Your task to perform on an android device: Clear all items from cart on costco.com. Search for "razer blade" on costco.com, select the first entry, and add it to the cart. Image 0: 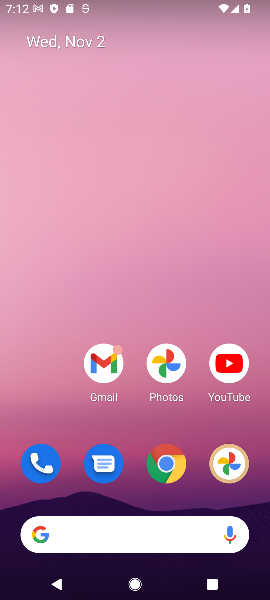
Step 0: click (166, 474)
Your task to perform on an android device: Clear all items from cart on costco.com. Search for "razer blade" on costco.com, select the first entry, and add it to the cart. Image 1: 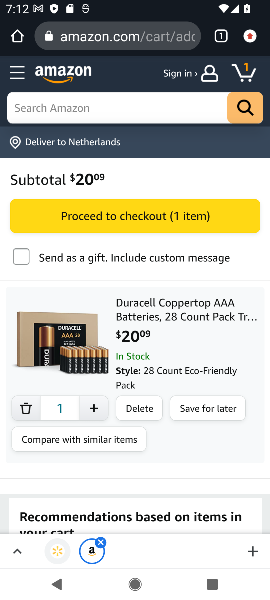
Step 1: click (112, 43)
Your task to perform on an android device: Clear all items from cart on costco.com. Search for "razer blade" on costco.com, select the first entry, and add it to the cart. Image 2: 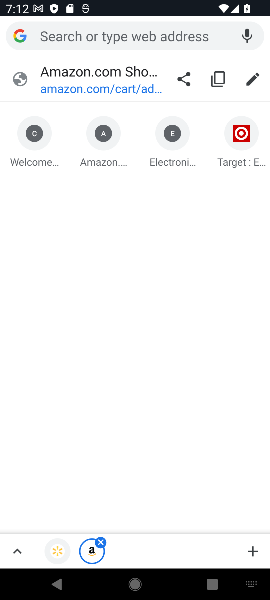
Step 2: type "costco.com"
Your task to perform on an android device: Clear all items from cart on costco.com. Search for "razer blade" on costco.com, select the first entry, and add it to the cart. Image 3: 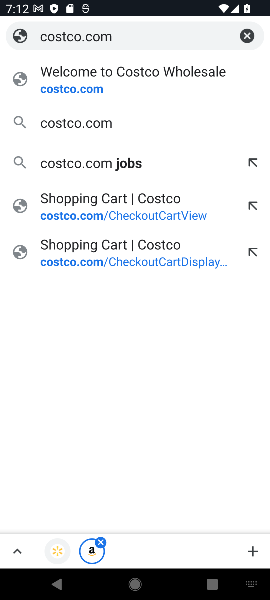
Step 3: click (53, 92)
Your task to perform on an android device: Clear all items from cart on costco.com. Search for "razer blade" on costco.com, select the first entry, and add it to the cart. Image 4: 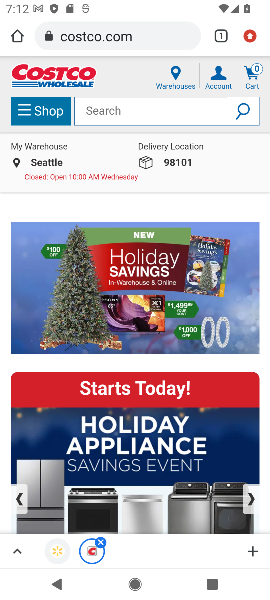
Step 4: click (263, 74)
Your task to perform on an android device: Clear all items from cart on costco.com. Search for "razer blade" on costco.com, select the first entry, and add it to the cart. Image 5: 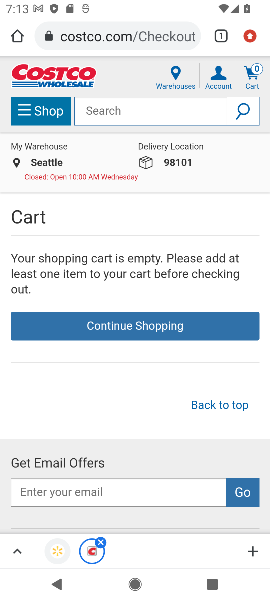
Step 5: click (164, 100)
Your task to perform on an android device: Clear all items from cart on costco.com. Search for "razer blade" on costco.com, select the first entry, and add it to the cart. Image 6: 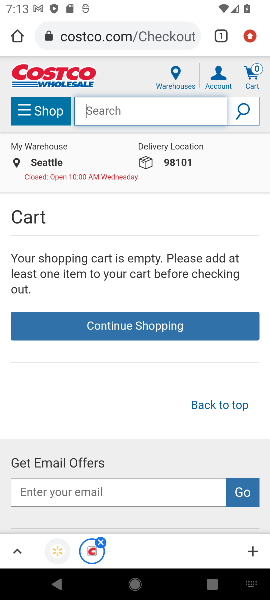
Step 6: type "razer blade"
Your task to perform on an android device: Clear all items from cart on costco.com. Search for "razer blade" on costco.com, select the first entry, and add it to the cart. Image 7: 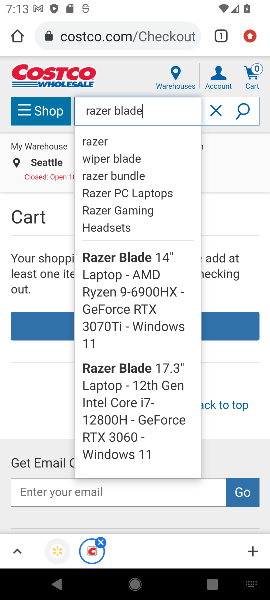
Step 7: click (249, 108)
Your task to perform on an android device: Clear all items from cart on costco.com. Search for "razer blade" on costco.com, select the first entry, and add it to the cart. Image 8: 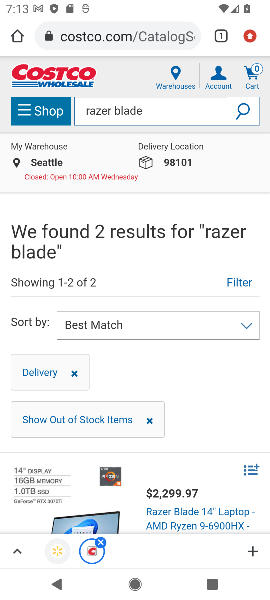
Step 8: drag from (170, 505) to (191, 286)
Your task to perform on an android device: Clear all items from cart on costco.com. Search for "razer blade" on costco.com, select the first entry, and add it to the cart. Image 9: 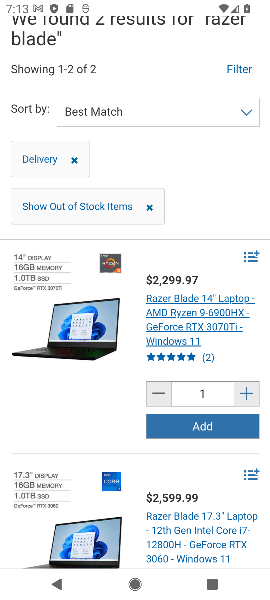
Step 9: click (184, 307)
Your task to perform on an android device: Clear all items from cart on costco.com. Search for "razer blade" on costco.com, select the first entry, and add it to the cart. Image 10: 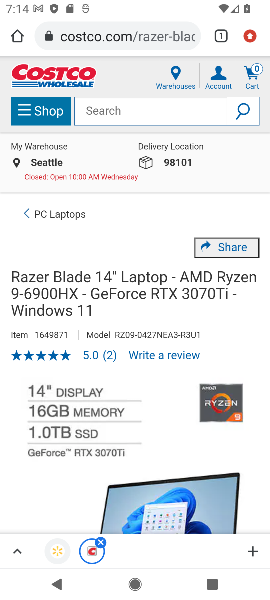
Step 10: drag from (135, 383) to (158, 152)
Your task to perform on an android device: Clear all items from cart on costco.com. Search for "razer blade" on costco.com, select the first entry, and add it to the cart. Image 11: 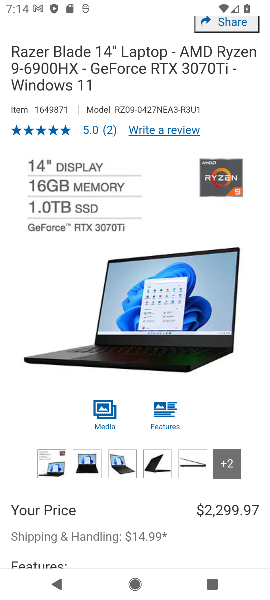
Step 11: drag from (168, 421) to (175, 194)
Your task to perform on an android device: Clear all items from cart on costco.com. Search for "razer blade" on costco.com, select the first entry, and add it to the cart. Image 12: 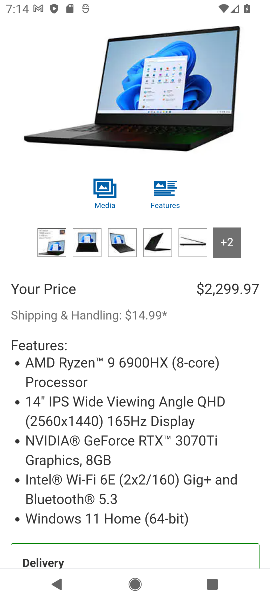
Step 12: drag from (146, 472) to (165, 150)
Your task to perform on an android device: Clear all items from cart on costco.com. Search for "razer blade" on costco.com, select the first entry, and add it to the cart. Image 13: 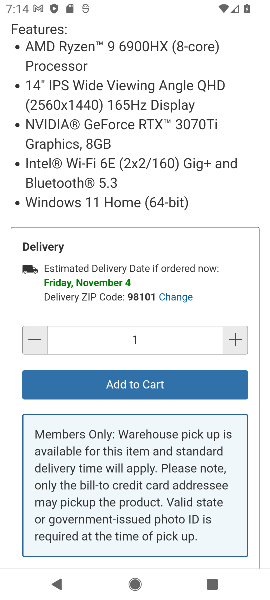
Step 13: click (123, 384)
Your task to perform on an android device: Clear all items from cart on costco.com. Search for "razer blade" on costco.com, select the first entry, and add it to the cart. Image 14: 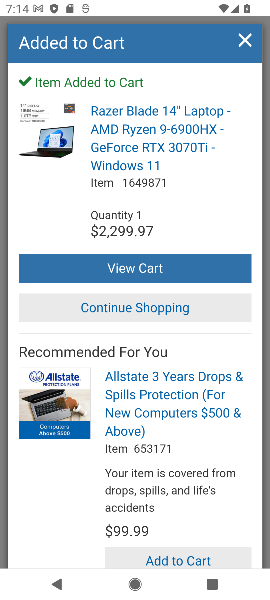
Step 14: task complete